Your task to perform on an android device: Open Google Chrome and open the bookmarks view Image 0: 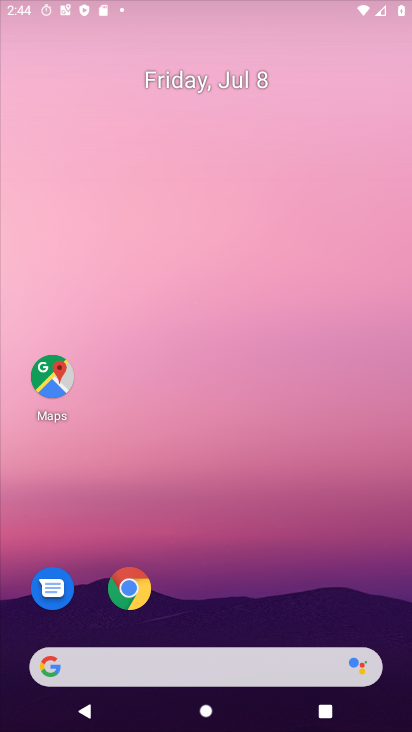
Step 0: press home button
Your task to perform on an android device: Open Google Chrome and open the bookmarks view Image 1: 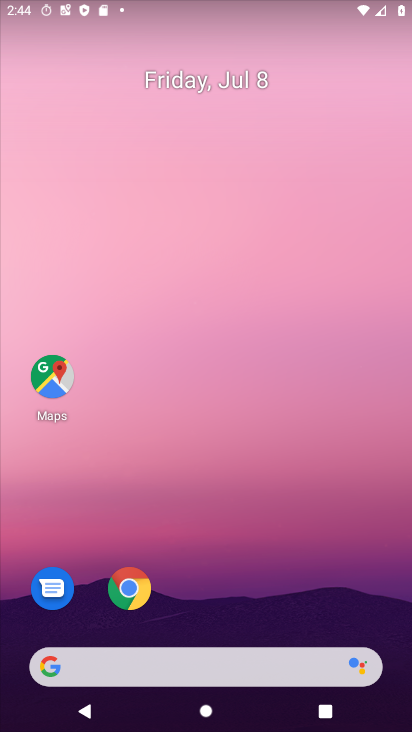
Step 1: drag from (210, 630) to (257, 97)
Your task to perform on an android device: Open Google Chrome and open the bookmarks view Image 2: 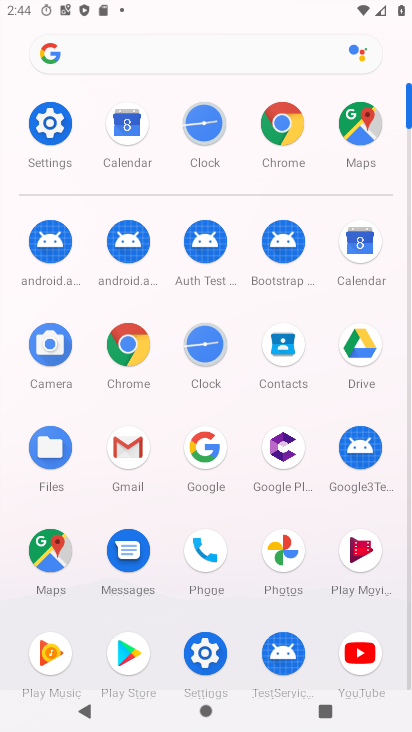
Step 2: click (290, 128)
Your task to perform on an android device: Open Google Chrome and open the bookmarks view Image 3: 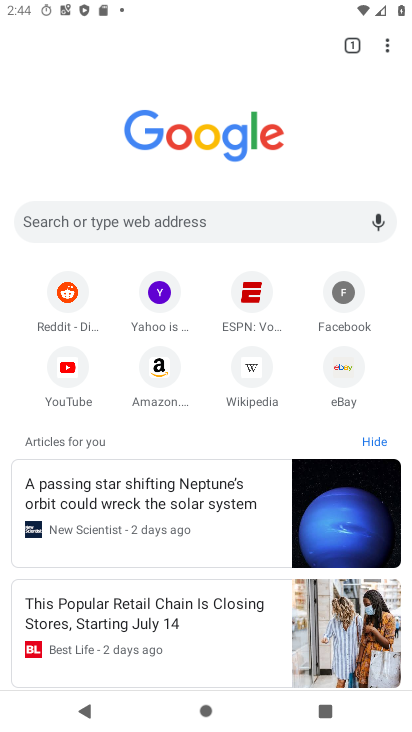
Step 3: task complete